Your task to perform on an android device: star an email in the gmail app Image 0: 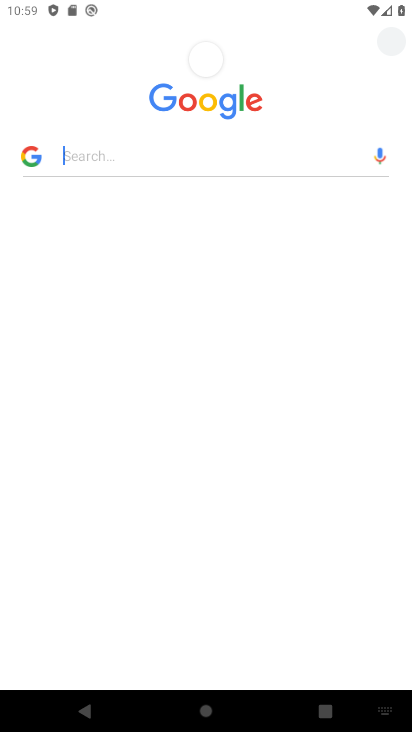
Step 0: press home button
Your task to perform on an android device: star an email in the gmail app Image 1: 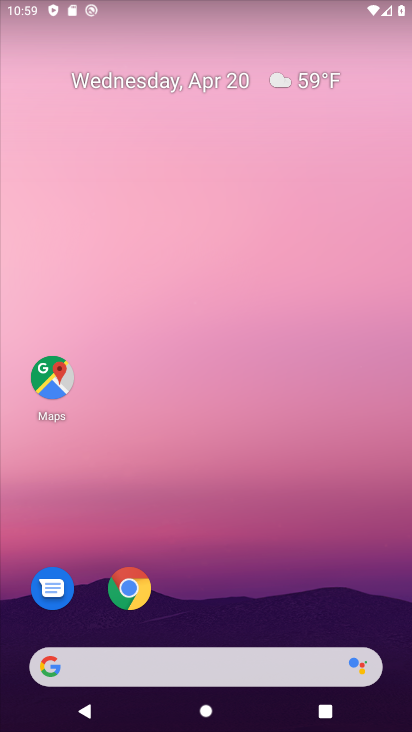
Step 1: drag from (227, 725) to (227, 151)
Your task to perform on an android device: star an email in the gmail app Image 2: 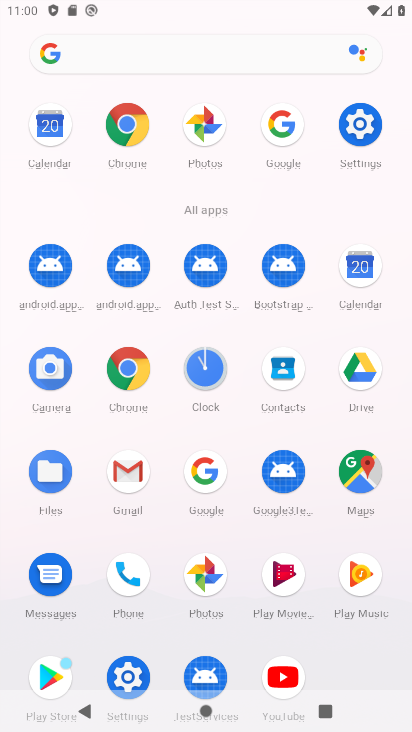
Step 2: click (129, 478)
Your task to perform on an android device: star an email in the gmail app Image 3: 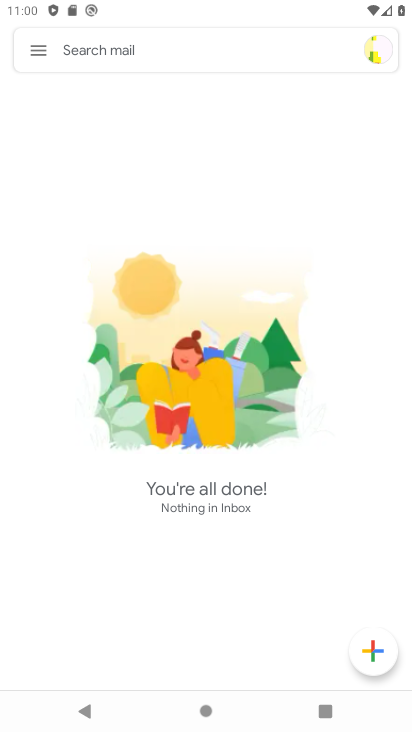
Step 3: task complete